Your task to perform on an android device: Go to network settings Image 0: 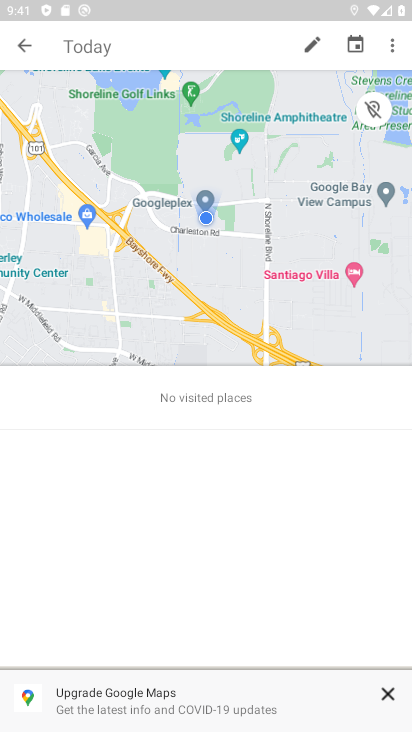
Step 0: press home button
Your task to perform on an android device: Go to network settings Image 1: 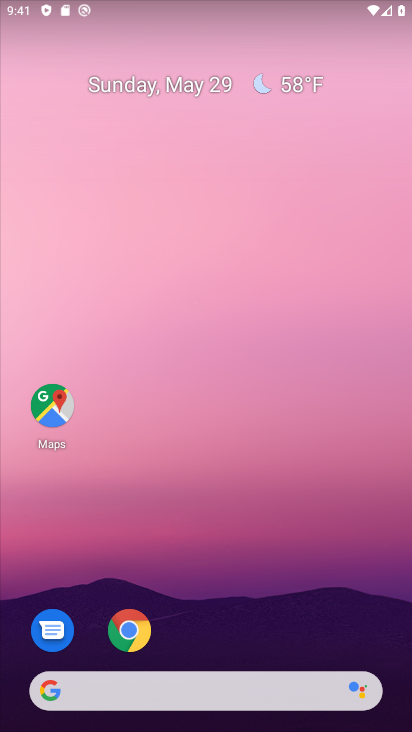
Step 1: drag from (209, 673) to (316, 192)
Your task to perform on an android device: Go to network settings Image 2: 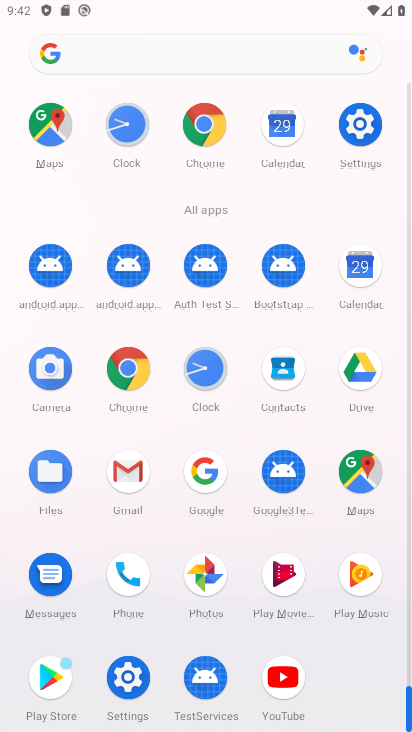
Step 2: click (129, 682)
Your task to perform on an android device: Go to network settings Image 3: 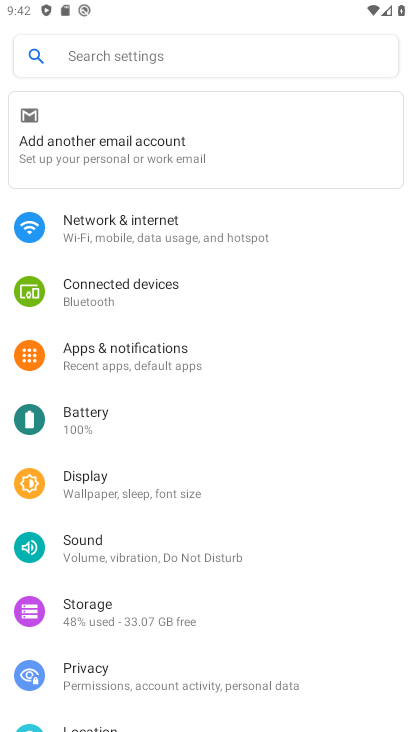
Step 3: click (214, 216)
Your task to perform on an android device: Go to network settings Image 4: 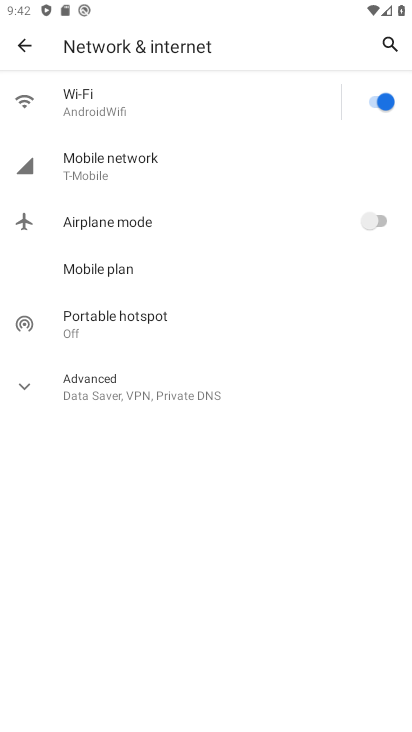
Step 4: click (189, 163)
Your task to perform on an android device: Go to network settings Image 5: 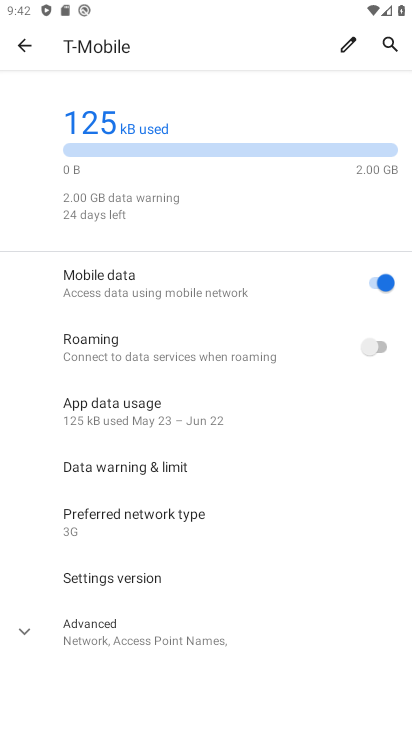
Step 5: task complete